Your task to perform on an android device: turn off notifications settings in the gmail app Image 0: 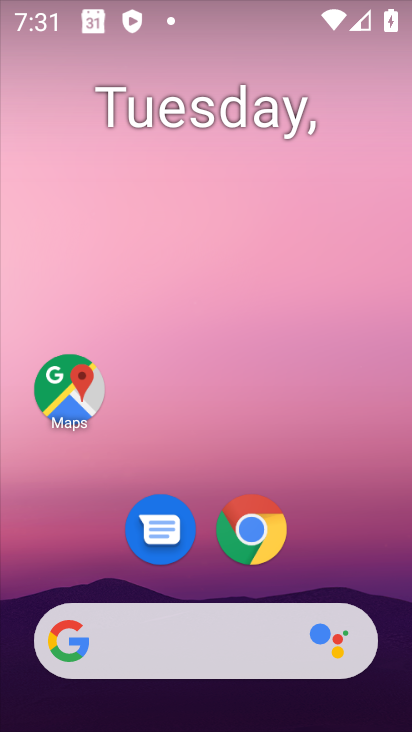
Step 0: drag from (151, 638) to (355, 68)
Your task to perform on an android device: turn off notifications settings in the gmail app Image 1: 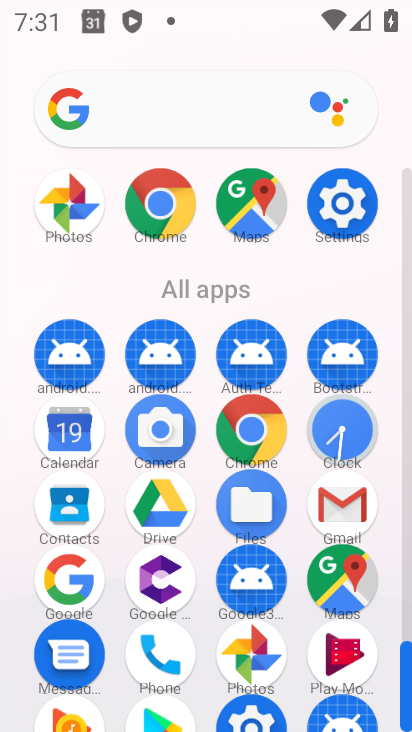
Step 1: click (350, 516)
Your task to perform on an android device: turn off notifications settings in the gmail app Image 2: 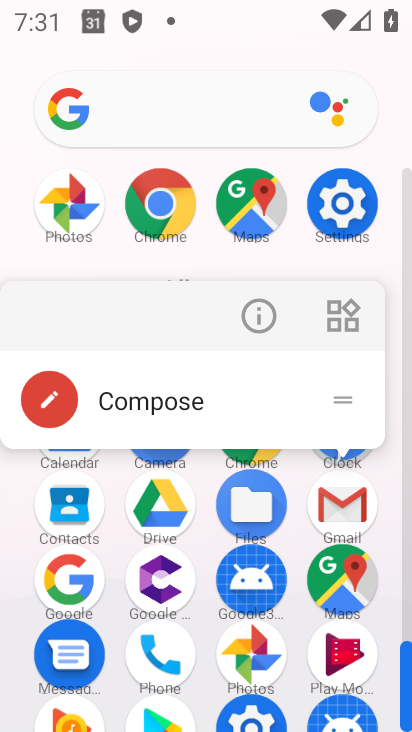
Step 2: click (344, 502)
Your task to perform on an android device: turn off notifications settings in the gmail app Image 3: 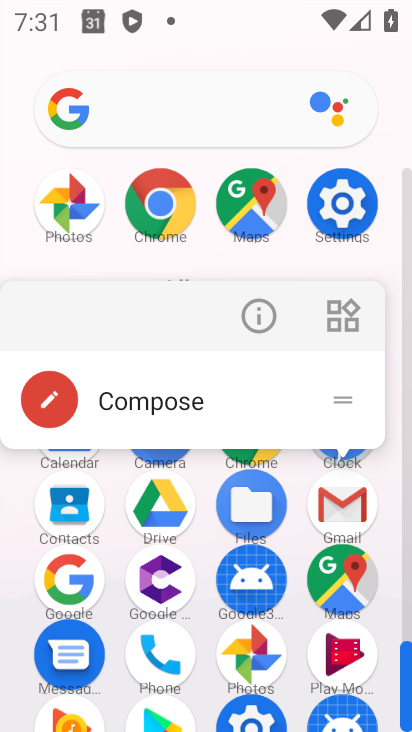
Step 3: click (338, 516)
Your task to perform on an android device: turn off notifications settings in the gmail app Image 4: 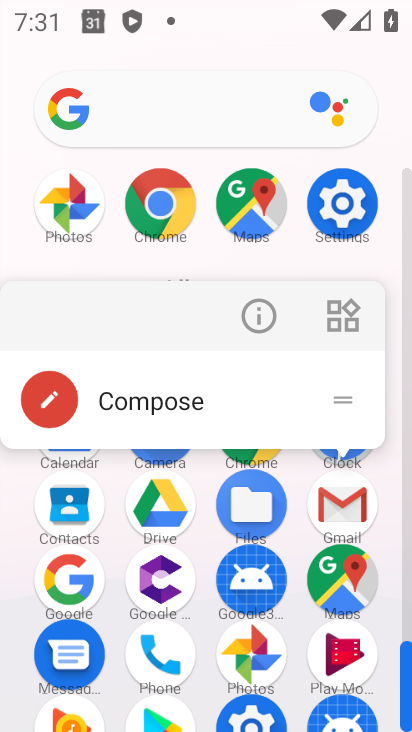
Step 4: click (337, 516)
Your task to perform on an android device: turn off notifications settings in the gmail app Image 5: 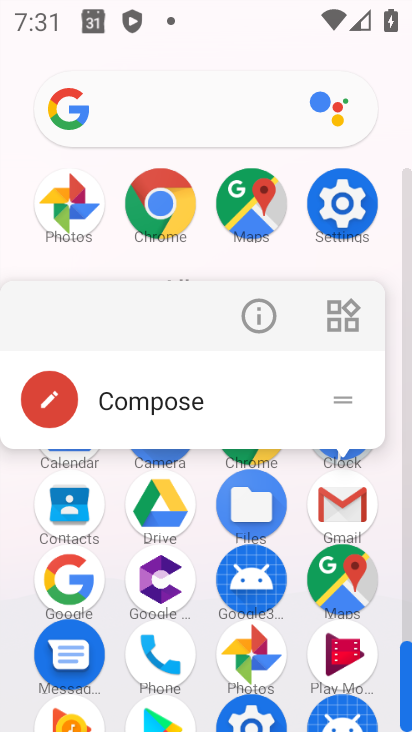
Step 5: click (341, 511)
Your task to perform on an android device: turn off notifications settings in the gmail app Image 6: 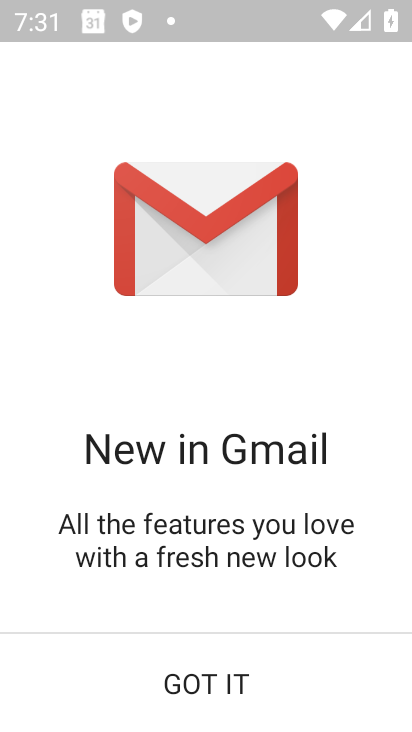
Step 6: click (181, 673)
Your task to perform on an android device: turn off notifications settings in the gmail app Image 7: 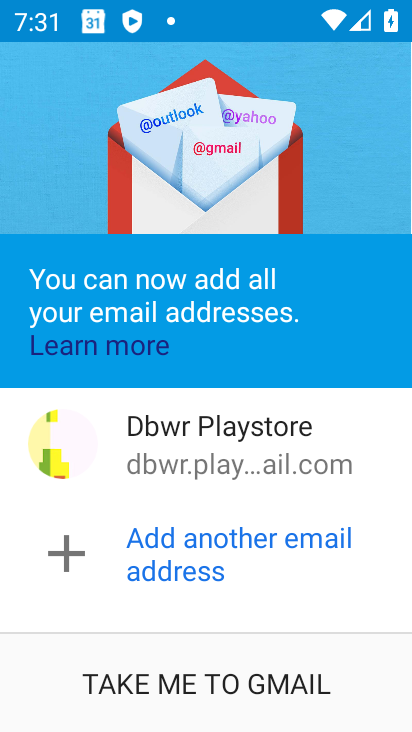
Step 7: click (181, 672)
Your task to perform on an android device: turn off notifications settings in the gmail app Image 8: 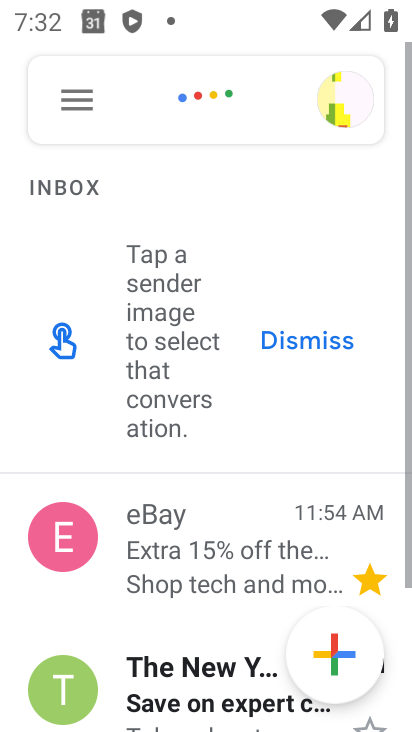
Step 8: click (81, 97)
Your task to perform on an android device: turn off notifications settings in the gmail app Image 9: 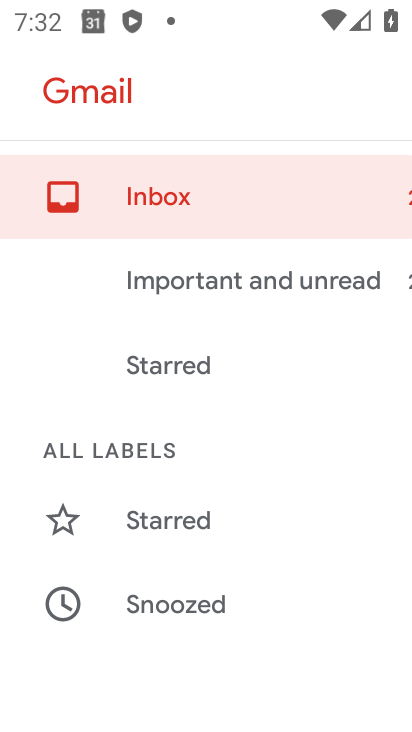
Step 9: drag from (241, 601) to (384, 154)
Your task to perform on an android device: turn off notifications settings in the gmail app Image 10: 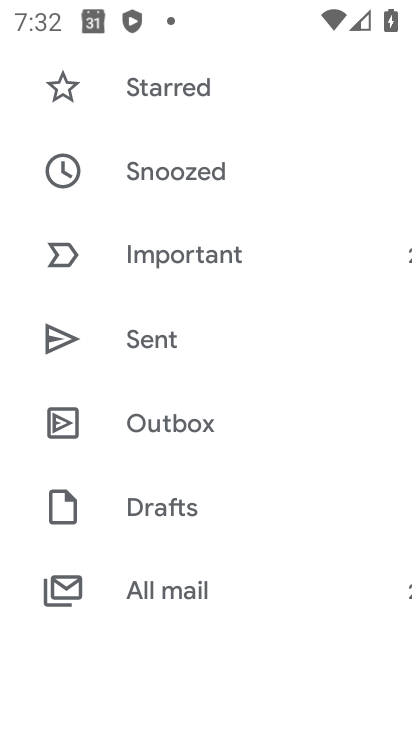
Step 10: drag from (255, 587) to (378, 149)
Your task to perform on an android device: turn off notifications settings in the gmail app Image 11: 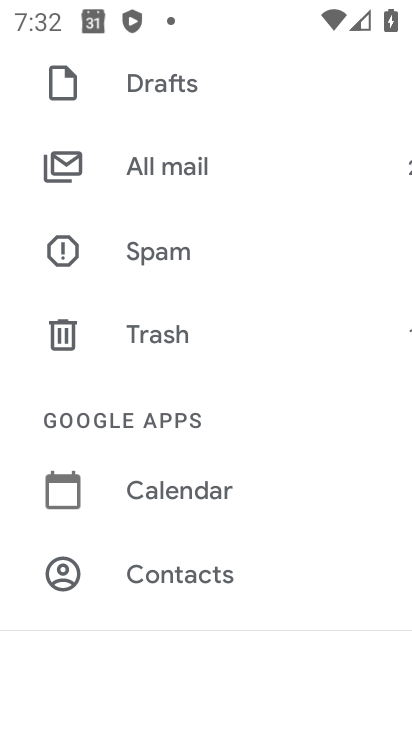
Step 11: drag from (301, 521) to (378, 175)
Your task to perform on an android device: turn off notifications settings in the gmail app Image 12: 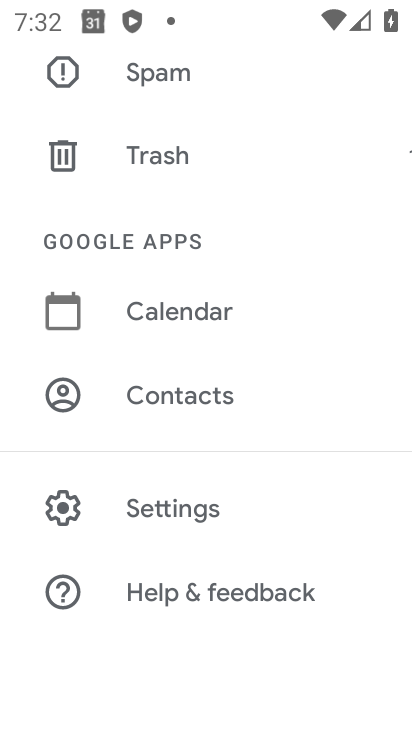
Step 12: click (196, 508)
Your task to perform on an android device: turn off notifications settings in the gmail app Image 13: 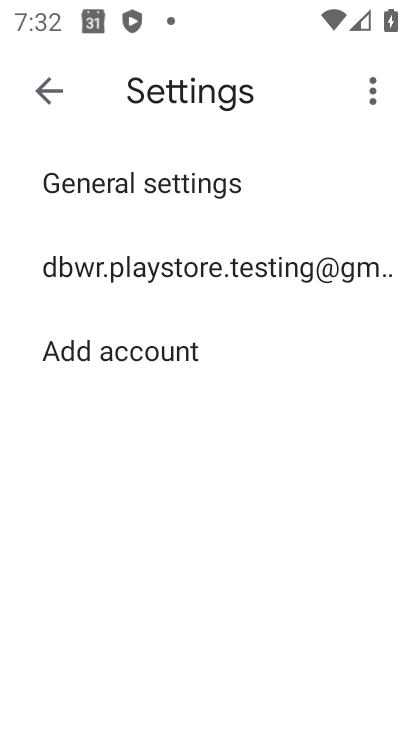
Step 13: click (283, 262)
Your task to perform on an android device: turn off notifications settings in the gmail app Image 14: 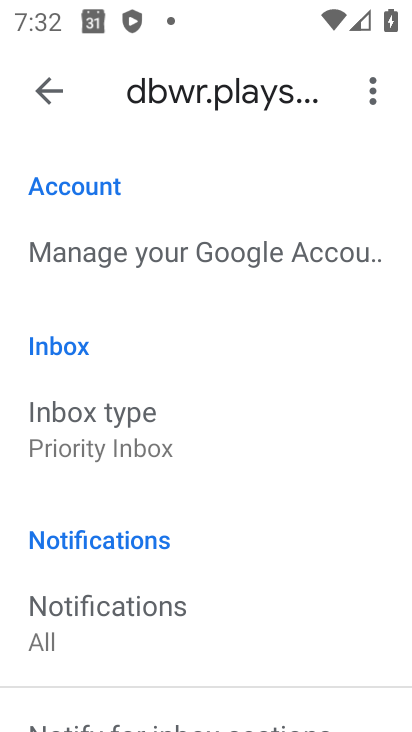
Step 14: click (139, 610)
Your task to perform on an android device: turn off notifications settings in the gmail app Image 15: 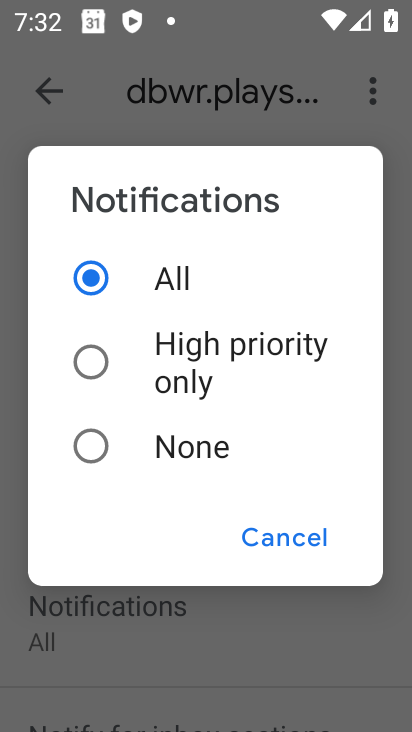
Step 15: click (87, 433)
Your task to perform on an android device: turn off notifications settings in the gmail app Image 16: 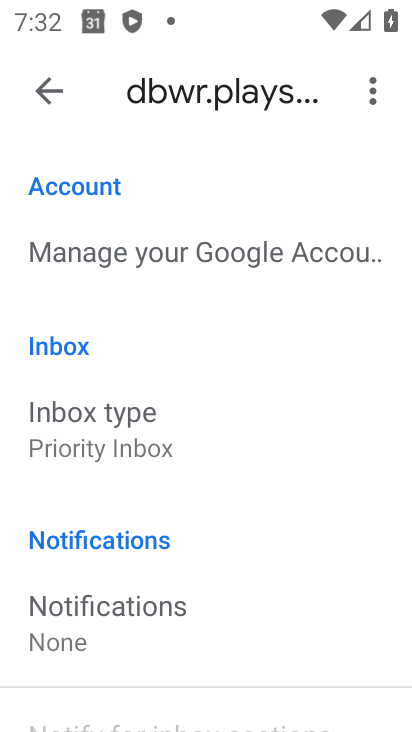
Step 16: task complete